Your task to perform on an android device: Open the stopwatch Image 0: 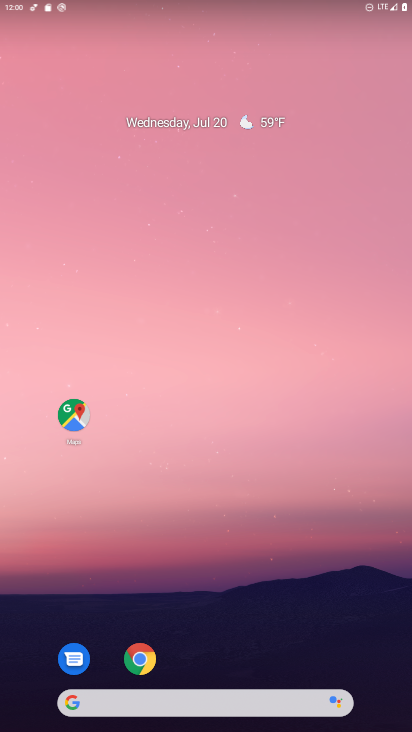
Step 0: drag from (265, 576) to (258, 177)
Your task to perform on an android device: Open the stopwatch Image 1: 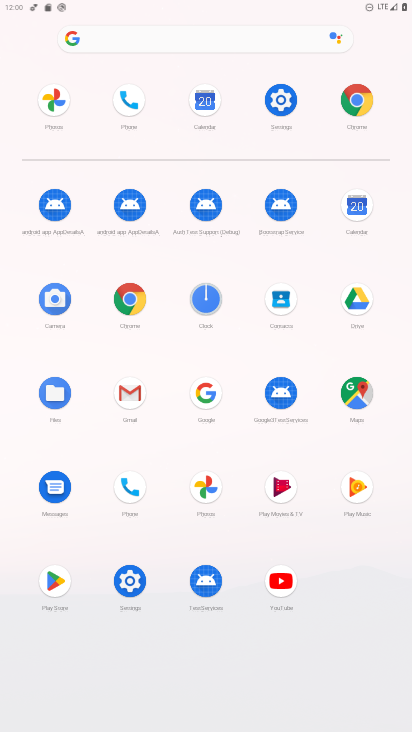
Step 1: click (208, 294)
Your task to perform on an android device: Open the stopwatch Image 2: 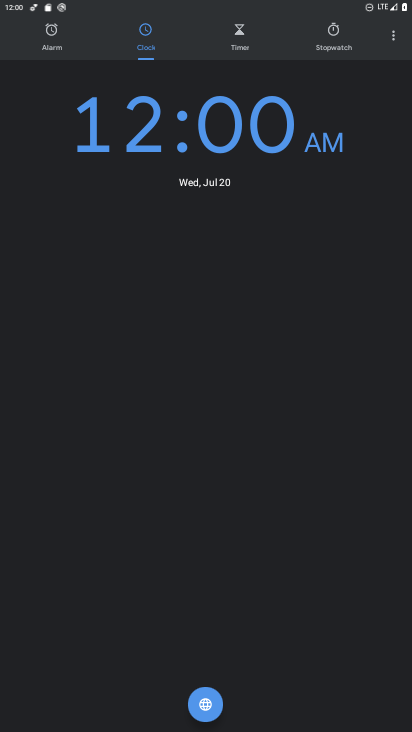
Step 2: click (329, 46)
Your task to perform on an android device: Open the stopwatch Image 3: 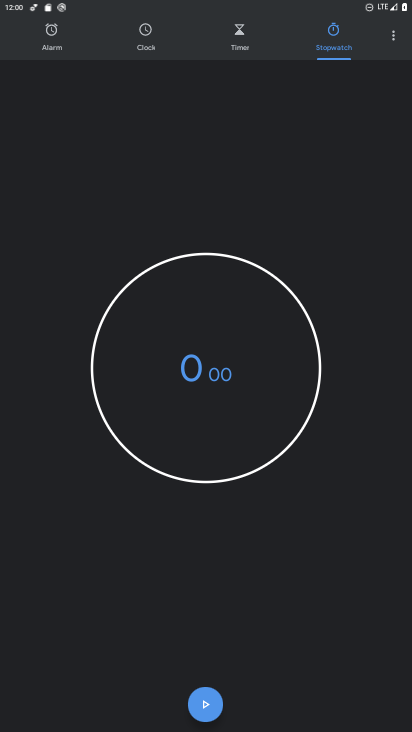
Step 3: task complete